Your task to perform on an android device: Show me recent news Image 0: 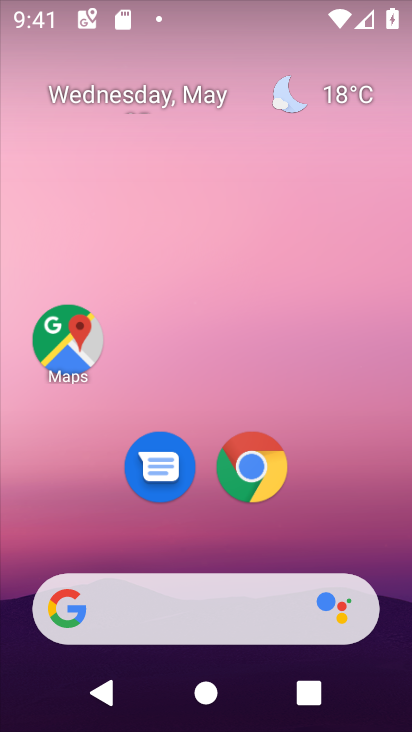
Step 0: click (254, 470)
Your task to perform on an android device: Show me recent news Image 1: 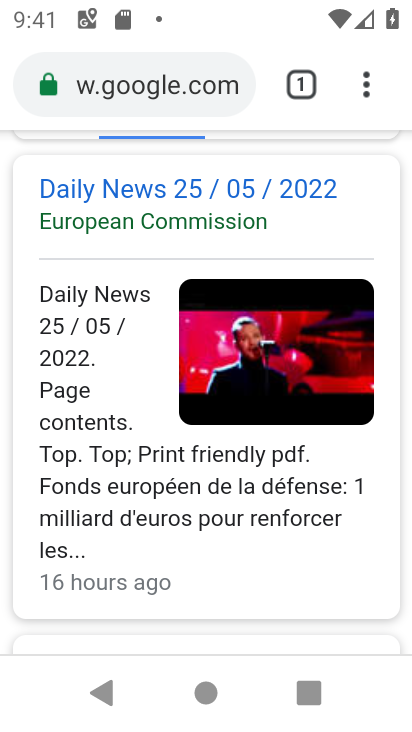
Step 1: click (202, 74)
Your task to perform on an android device: Show me recent news Image 2: 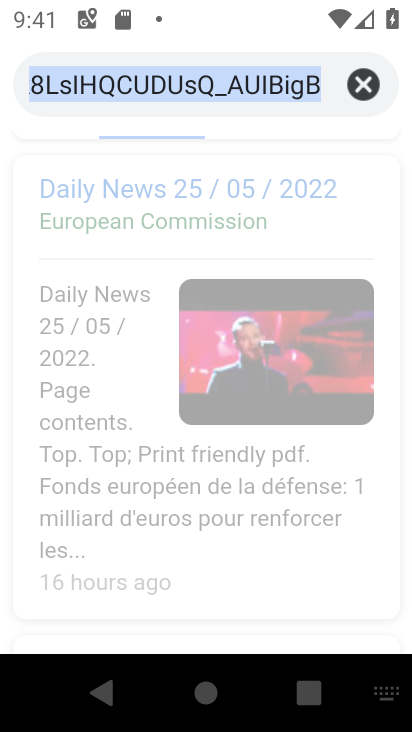
Step 2: type "news"
Your task to perform on an android device: Show me recent news Image 3: 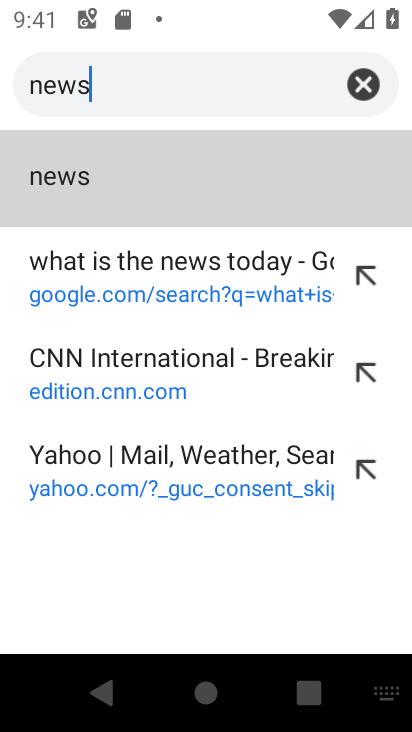
Step 3: click (153, 173)
Your task to perform on an android device: Show me recent news Image 4: 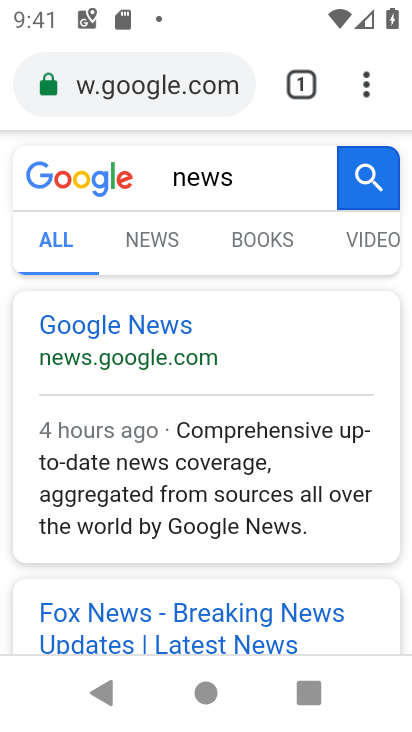
Step 4: click (160, 235)
Your task to perform on an android device: Show me recent news Image 5: 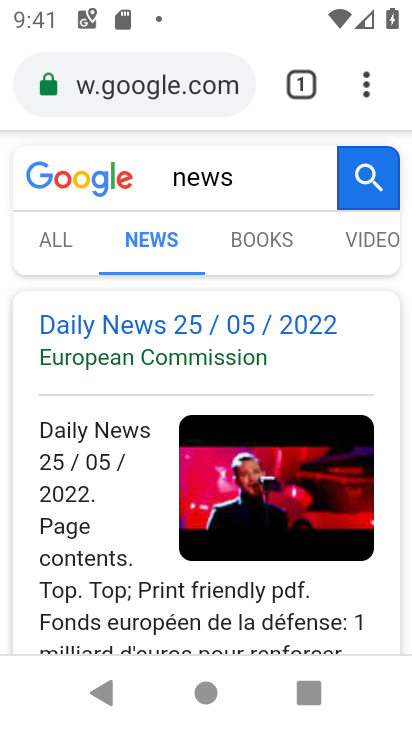
Step 5: task complete